Your task to perform on an android device: Do I have any events this weekend? Image 0: 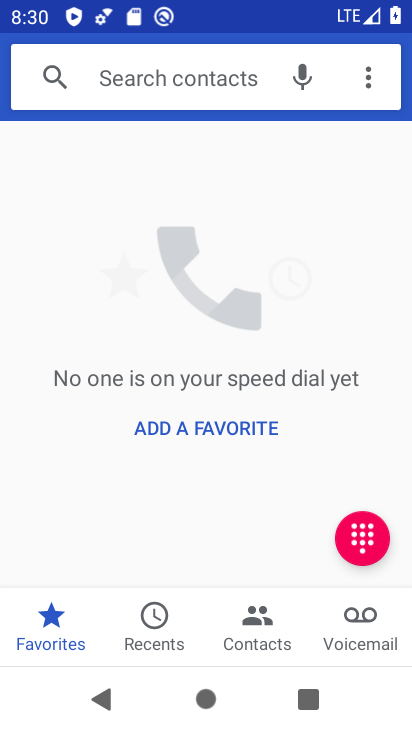
Step 0: press back button
Your task to perform on an android device: Do I have any events this weekend? Image 1: 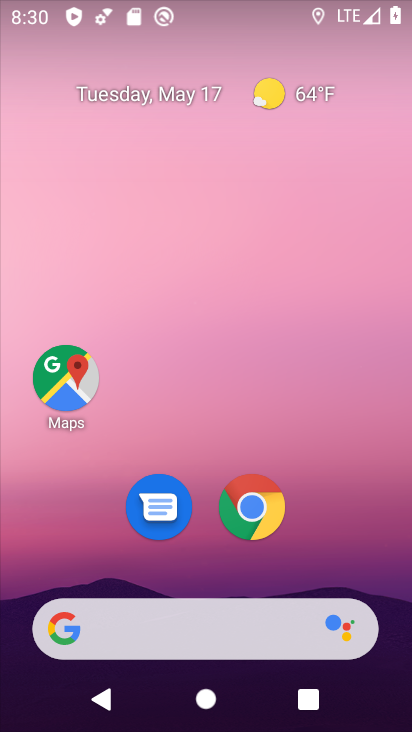
Step 1: drag from (324, 554) to (324, 5)
Your task to perform on an android device: Do I have any events this weekend? Image 2: 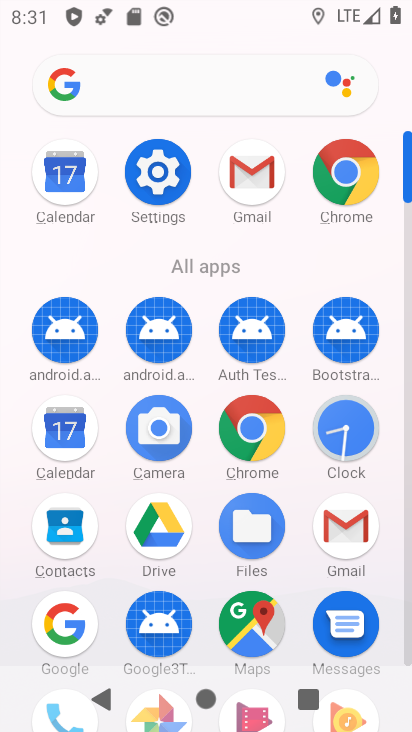
Step 2: click (68, 432)
Your task to perform on an android device: Do I have any events this weekend? Image 3: 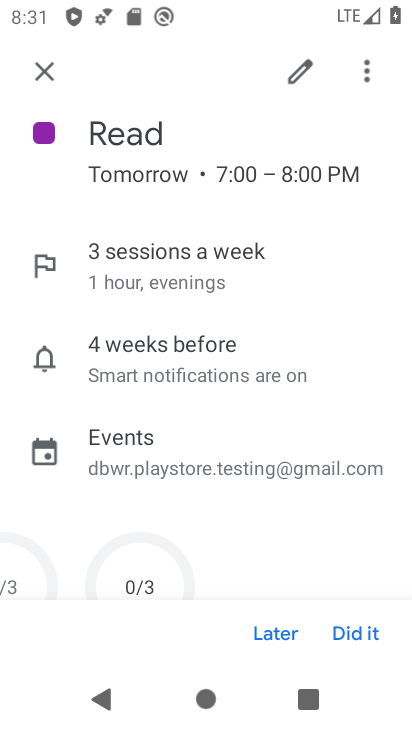
Step 3: click (41, 76)
Your task to perform on an android device: Do I have any events this weekend? Image 4: 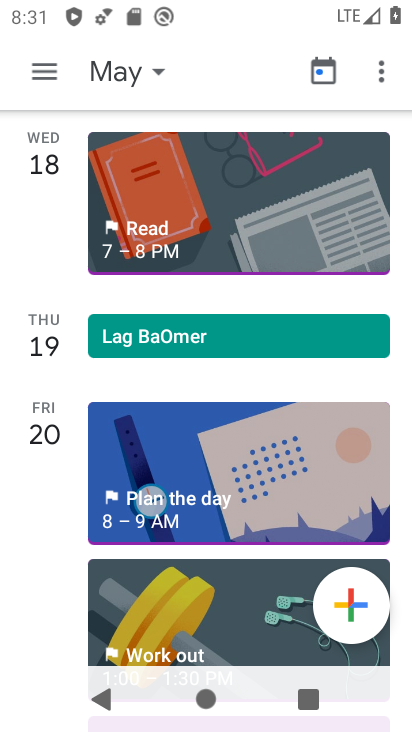
Step 4: click (156, 76)
Your task to perform on an android device: Do I have any events this weekend? Image 5: 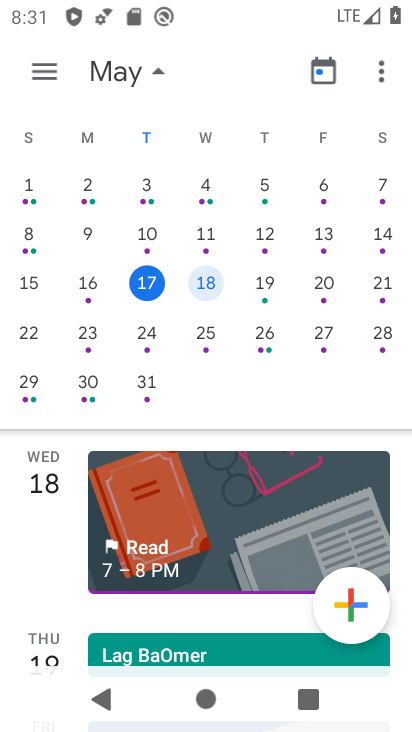
Step 5: click (388, 288)
Your task to perform on an android device: Do I have any events this weekend? Image 6: 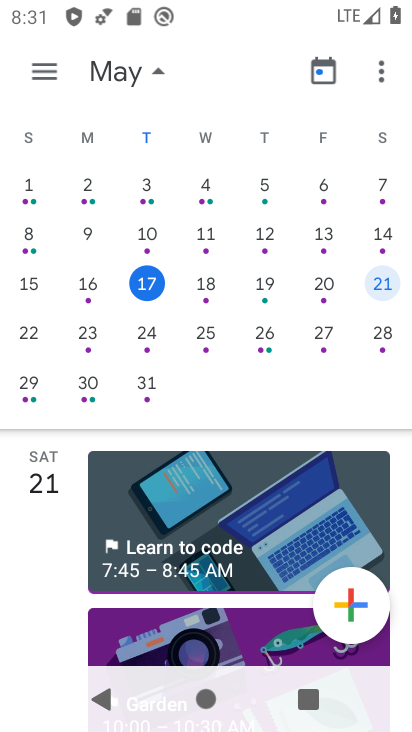
Step 6: click (50, 71)
Your task to perform on an android device: Do I have any events this weekend? Image 7: 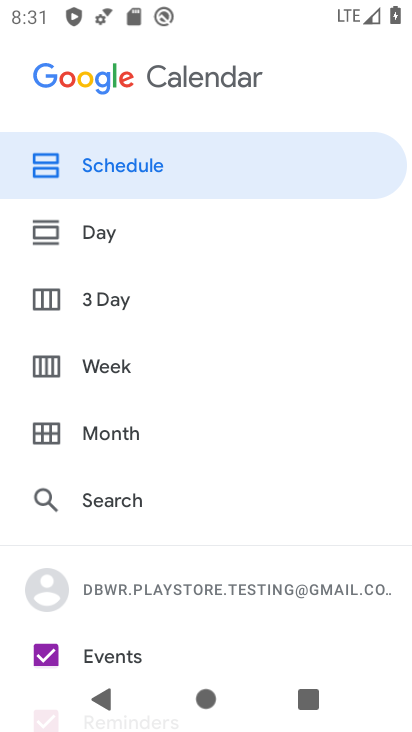
Step 7: click (101, 367)
Your task to perform on an android device: Do I have any events this weekend? Image 8: 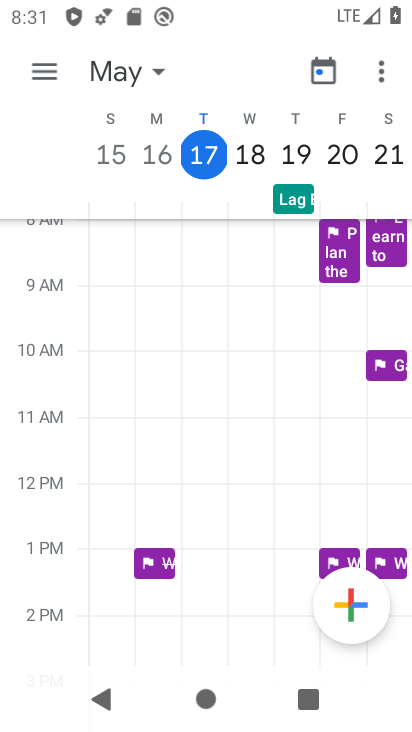
Step 8: task complete